Your task to perform on an android device: Toggle the flashlight Image 0: 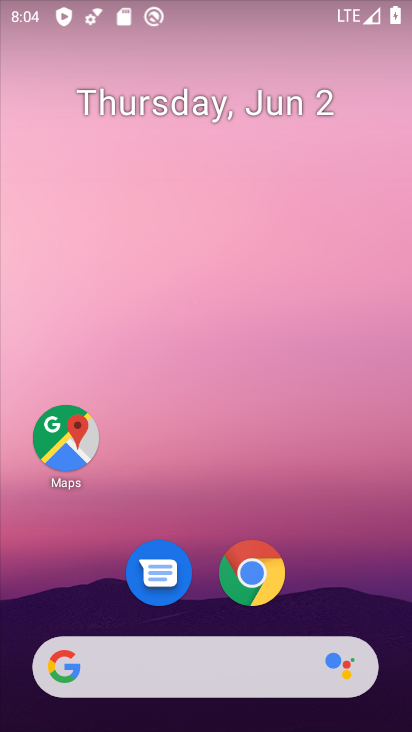
Step 0: drag from (375, 569) to (381, 0)
Your task to perform on an android device: Toggle the flashlight Image 1: 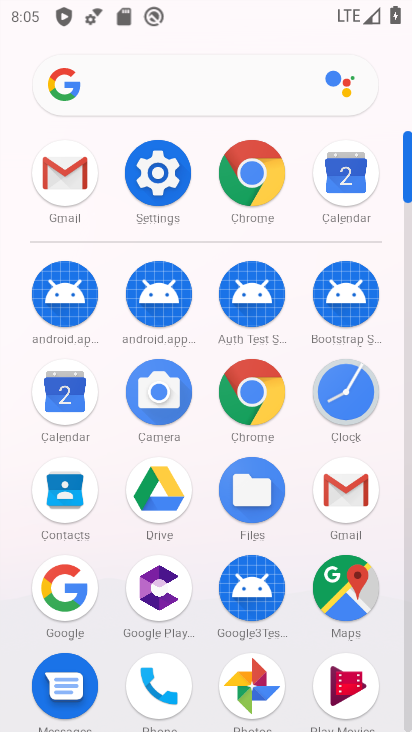
Step 1: click (139, 151)
Your task to perform on an android device: Toggle the flashlight Image 2: 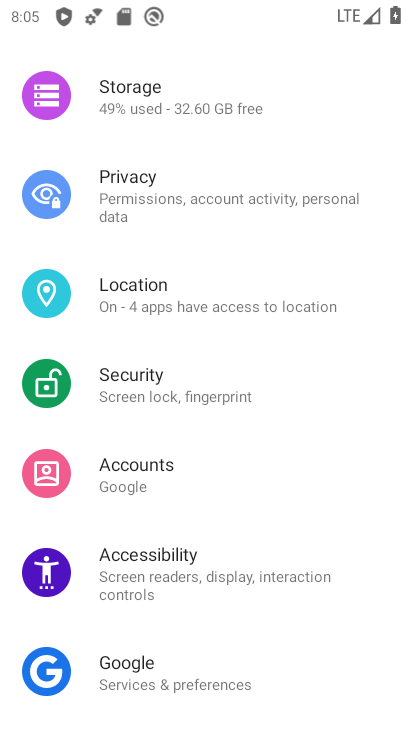
Step 2: task complete